Your task to perform on an android device: Search for a new 65" TV at Best Buy Image 0: 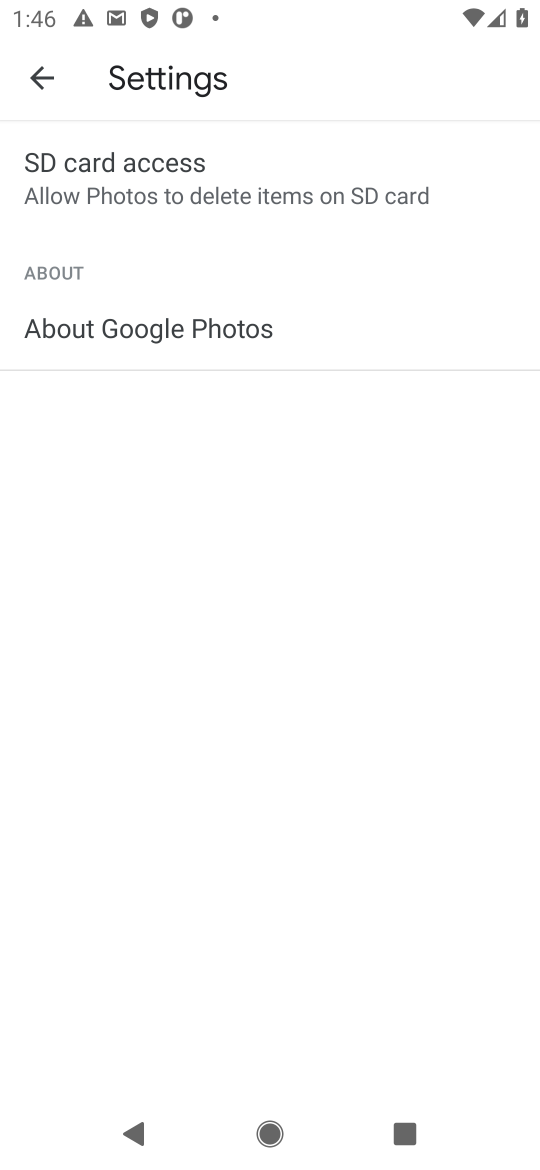
Step 0: press home button
Your task to perform on an android device: Search for a new 65" TV at Best Buy Image 1: 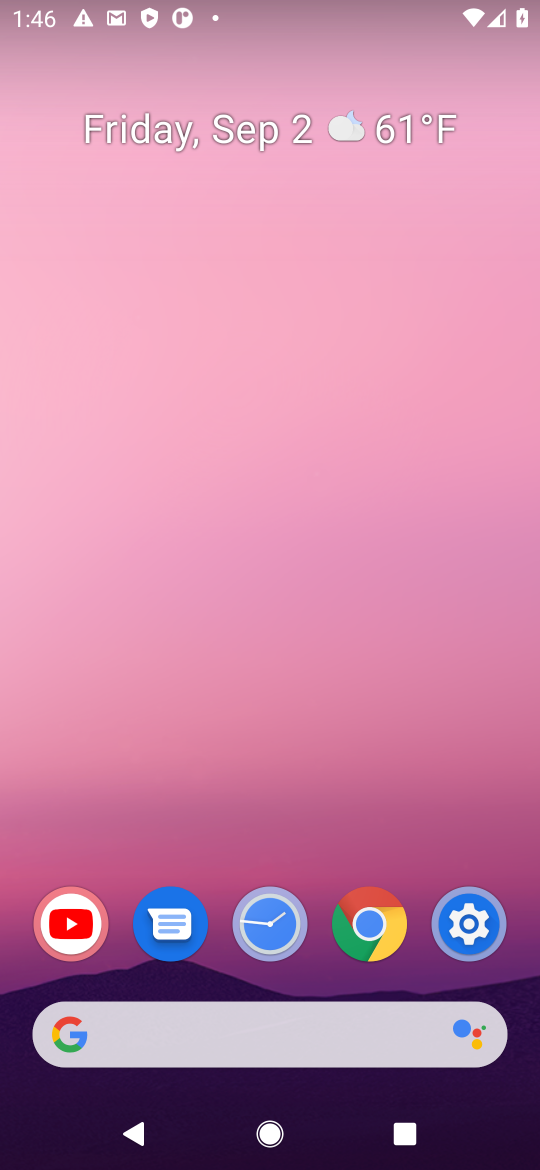
Step 1: click (400, 1038)
Your task to perform on an android device: Search for a new 65" TV at Best Buy Image 2: 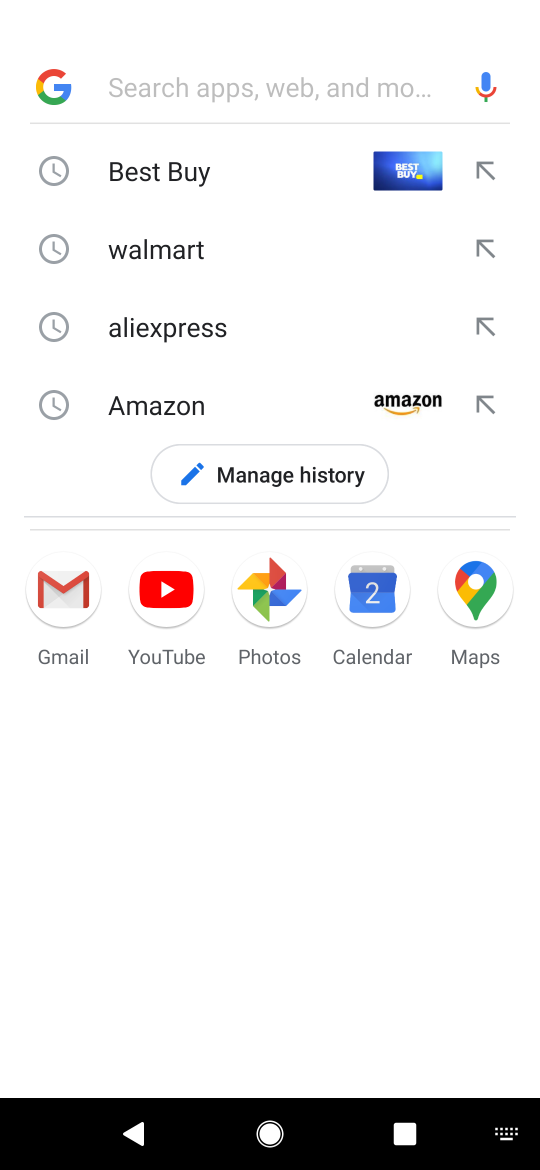
Step 2: click (181, 172)
Your task to perform on an android device: Search for a new 65" TV at Best Buy Image 3: 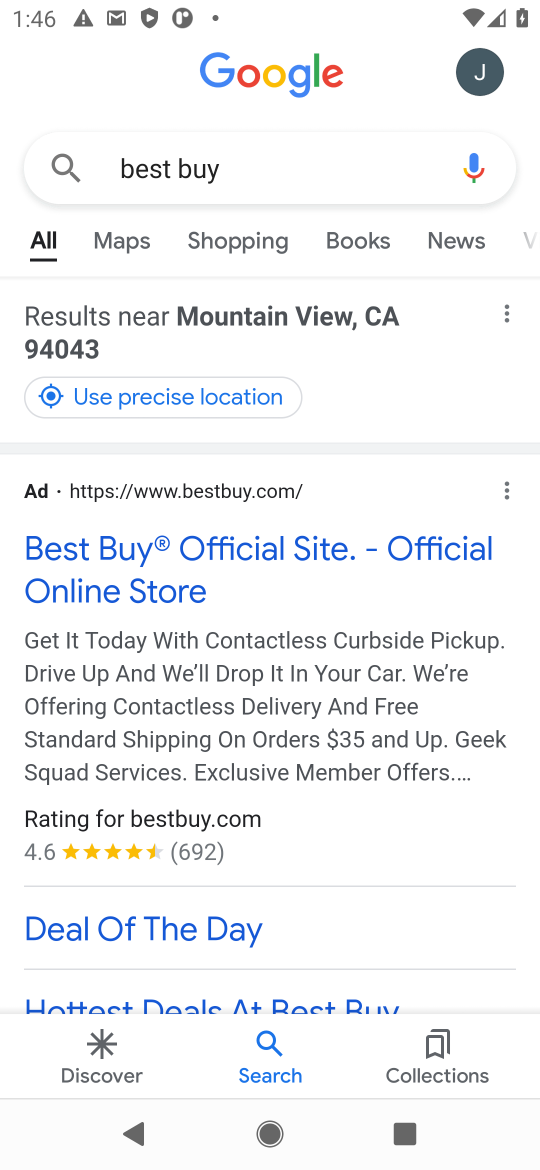
Step 3: click (240, 553)
Your task to perform on an android device: Search for a new 65" TV at Best Buy Image 4: 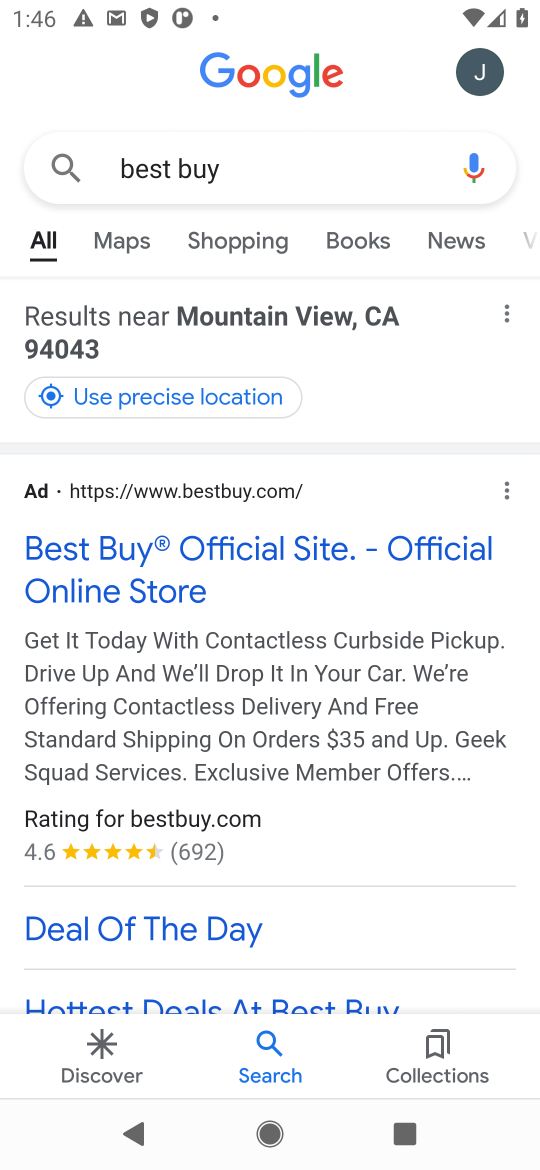
Step 4: click (309, 551)
Your task to perform on an android device: Search for a new 65" TV at Best Buy Image 5: 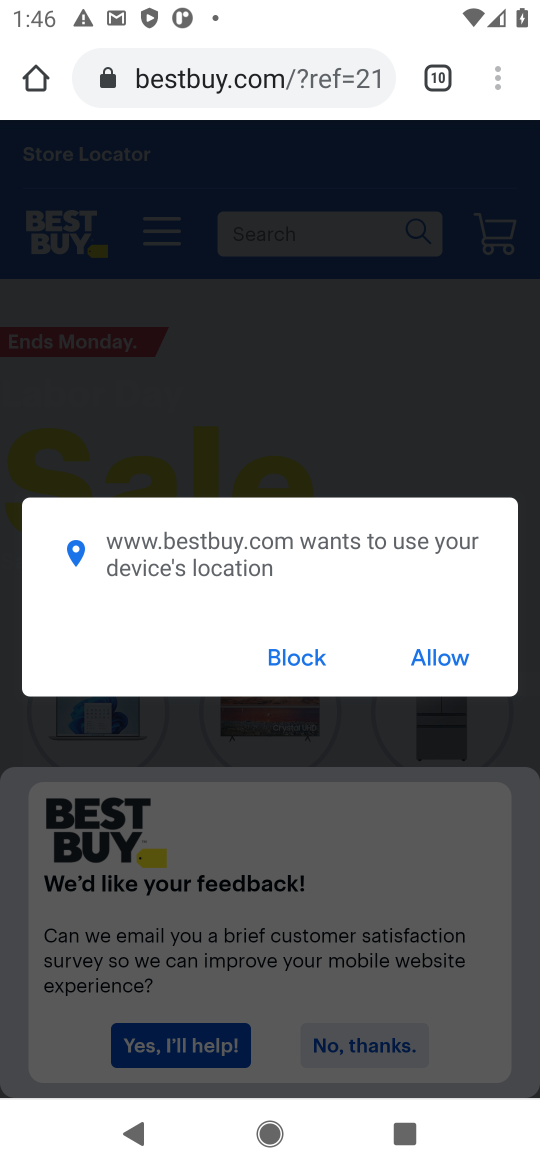
Step 5: click (296, 654)
Your task to perform on an android device: Search for a new 65" TV at Best Buy Image 6: 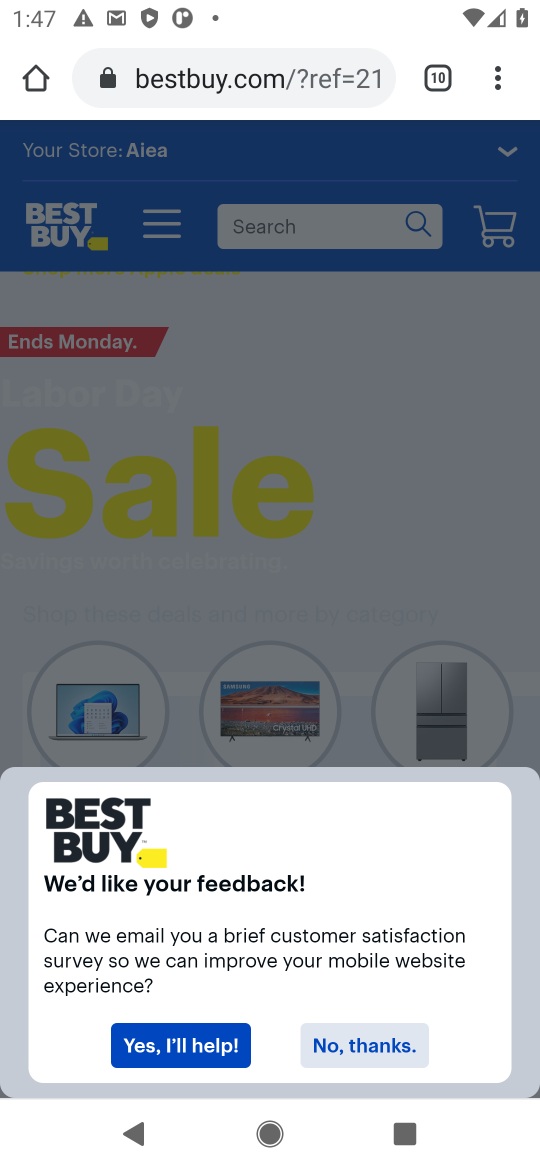
Step 6: click (350, 1043)
Your task to perform on an android device: Search for a new 65" TV at Best Buy Image 7: 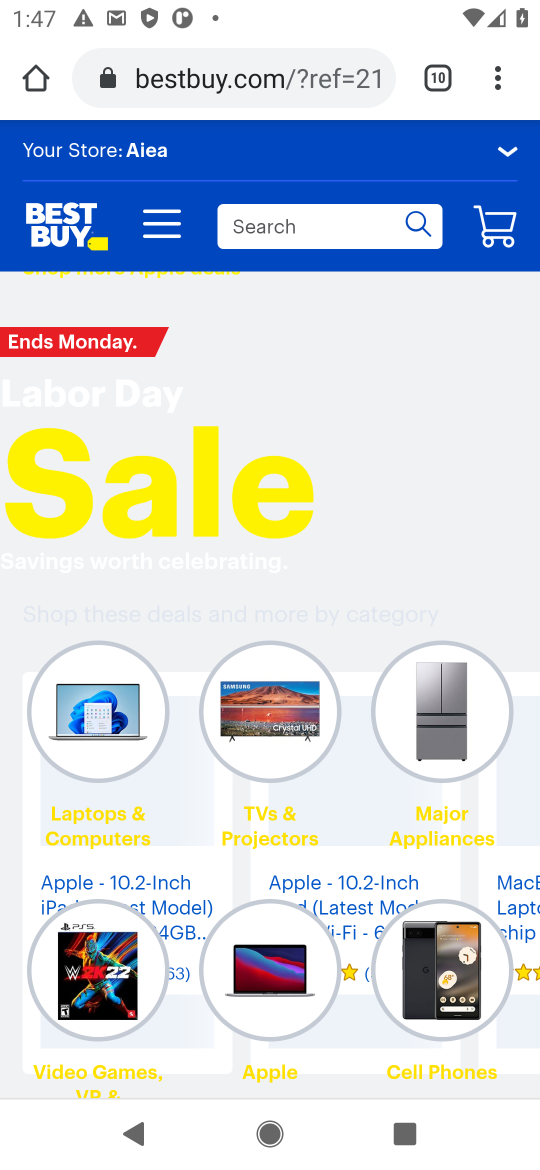
Step 7: click (292, 220)
Your task to perform on an android device: Search for a new 65" TV at Best Buy Image 8: 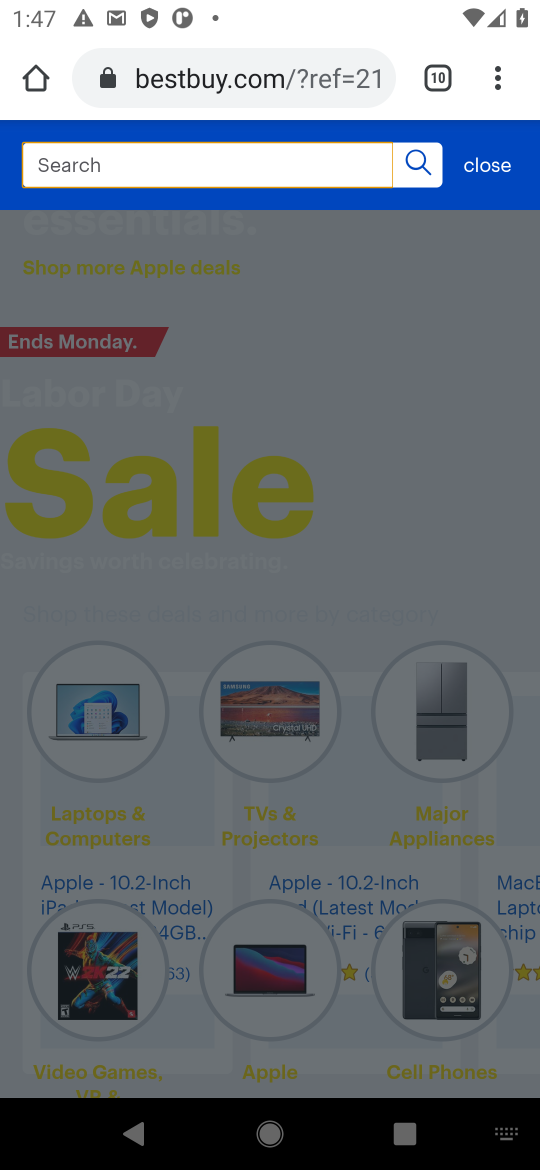
Step 8: type "65 tv"
Your task to perform on an android device: Search for a new 65" TV at Best Buy Image 9: 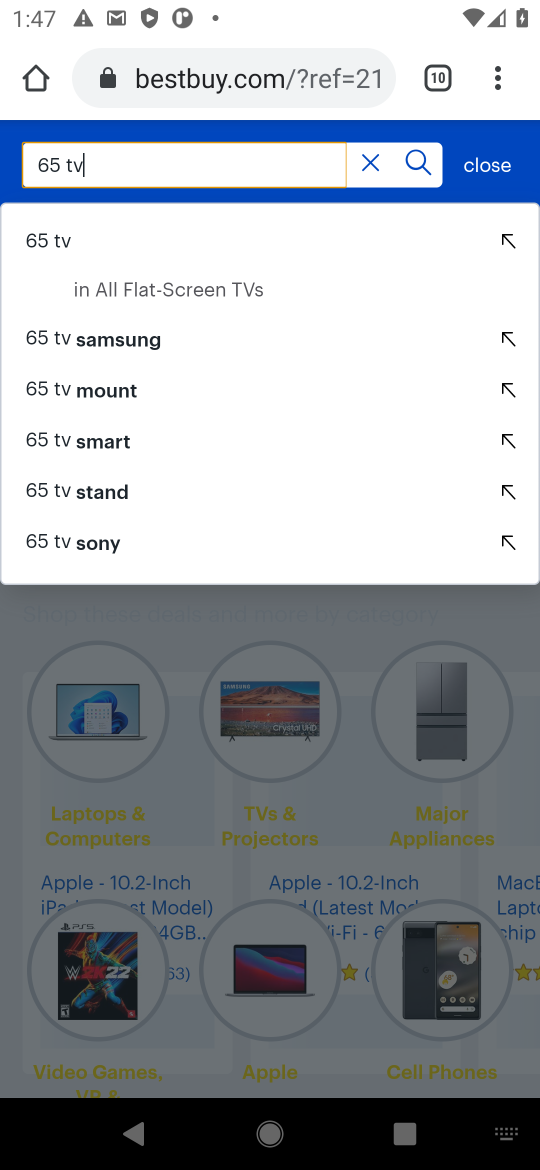
Step 9: click (76, 238)
Your task to perform on an android device: Search for a new 65" TV at Best Buy Image 10: 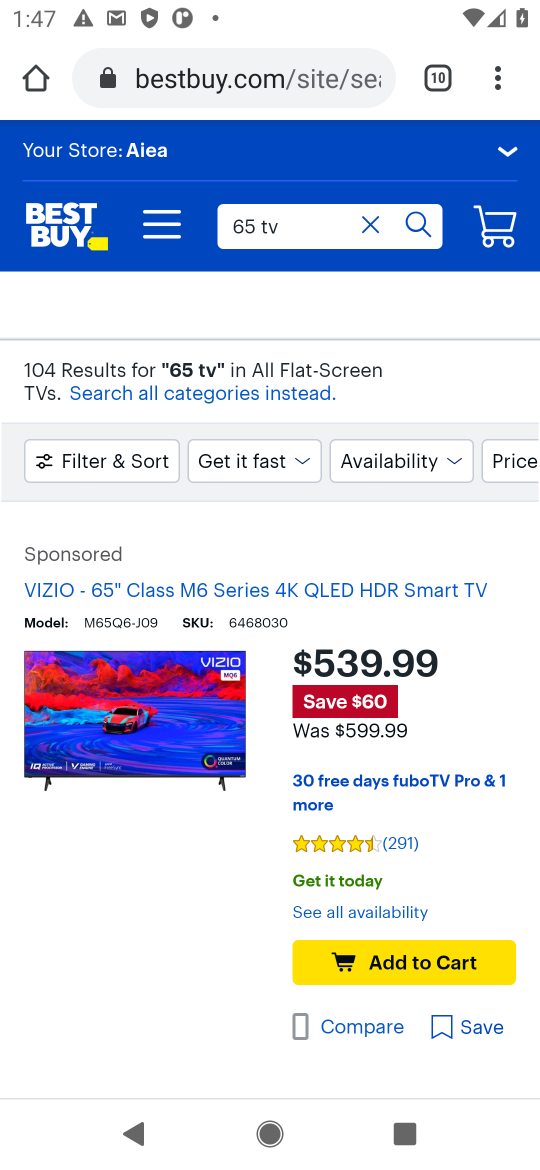
Step 10: task complete